Your task to perform on an android device: add a contact Image 0: 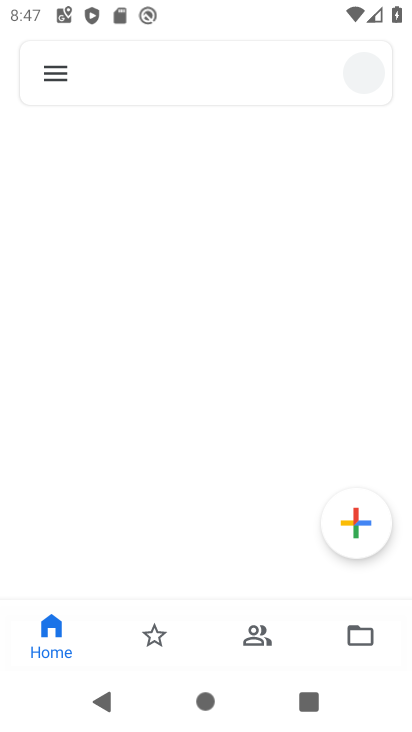
Step 0: drag from (230, 448) to (238, 72)
Your task to perform on an android device: add a contact Image 1: 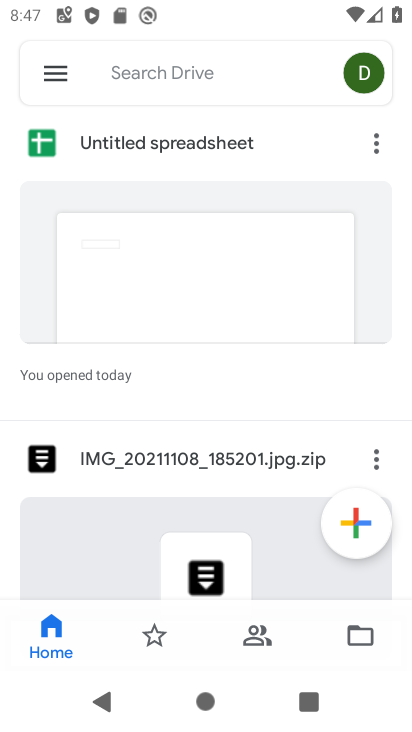
Step 1: press home button
Your task to perform on an android device: add a contact Image 2: 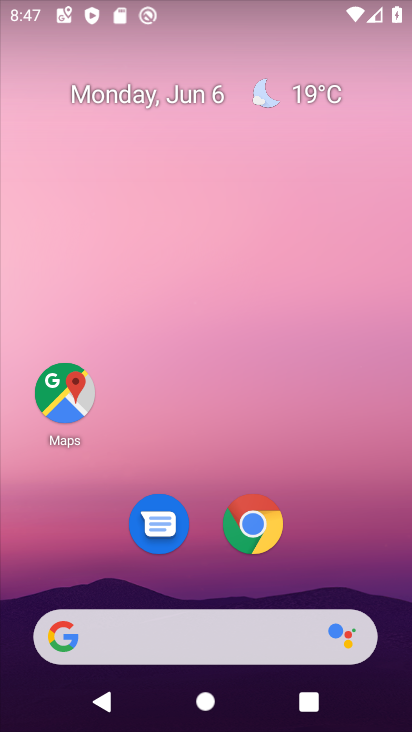
Step 2: drag from (201, 533) to (208, 43)
Your task to perform on an android device: add a contact Image 3: 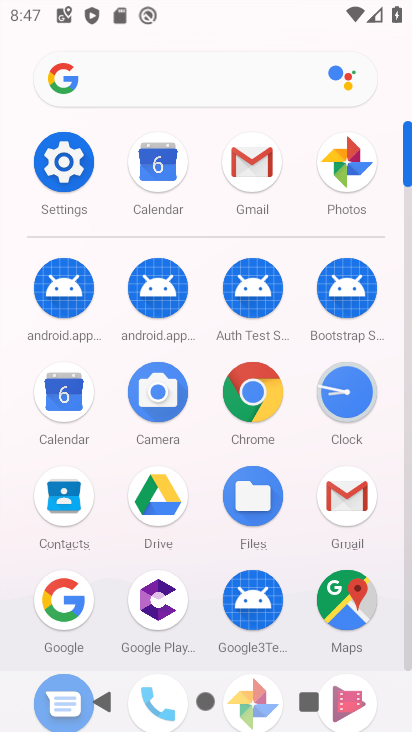
Step 3: click (69, 505)
Your task to perform on an android device: add a contact Image 4: 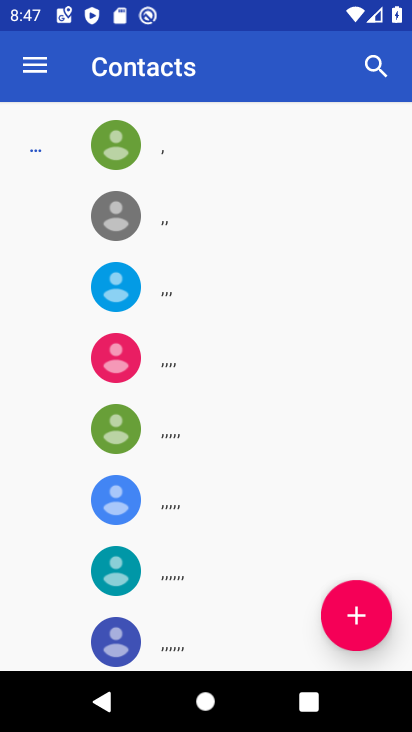
Step 4: click (344, 606)
Your task to perform on an android device: add a contact Image 5: 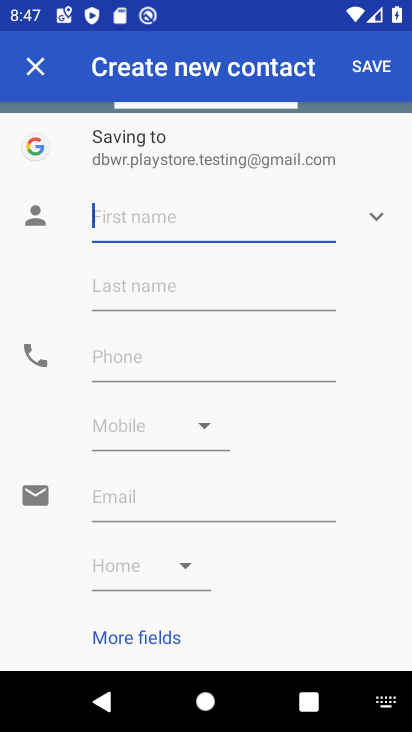
Step 5: type "Maha Rana Pratap"
Your task to perform on an android device: add a contact Image 6: 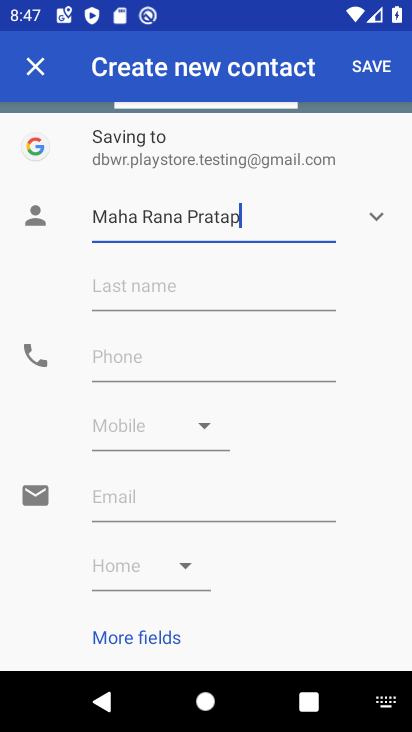
Step 6: click (247, 352)
Your task to perform on an android device: add a contact Image 7: 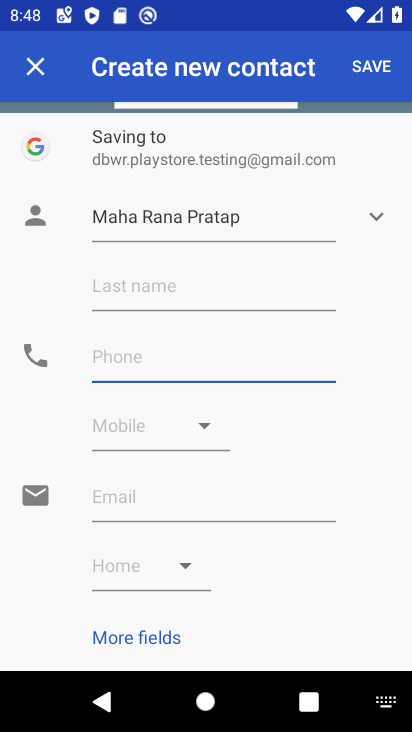
Step 7: type "0112230001"
Your task to perform on an android device: add a contact Image 8: 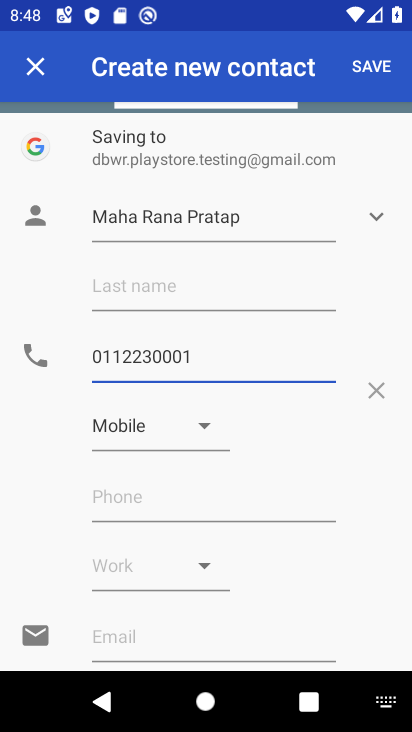
Step 8: click (374, 75)
Your task to perform on an android device: add a contact Image 9: 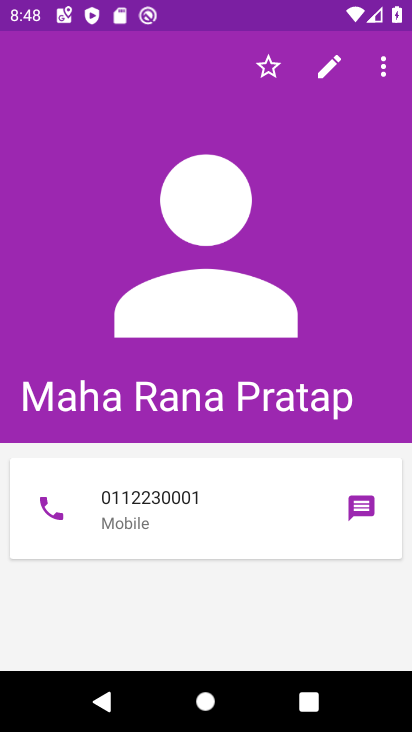
Step 9: task complete